Your task to perform on an android device: turn on translation in the chrome app Image 0: 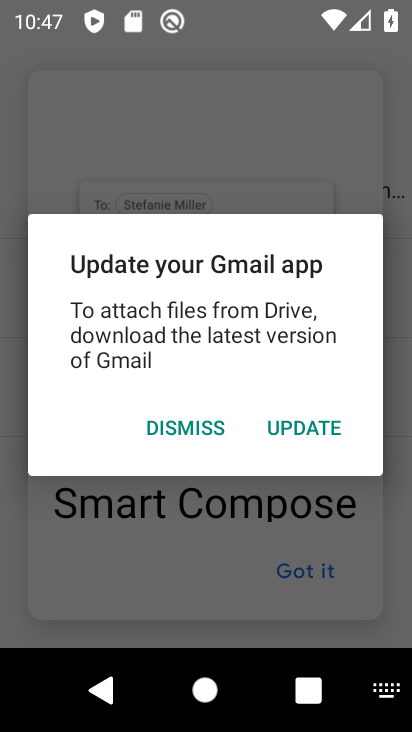
Step 0: press home button
Your task to perform on an android device: turn on translation in the chrome app Image 1: 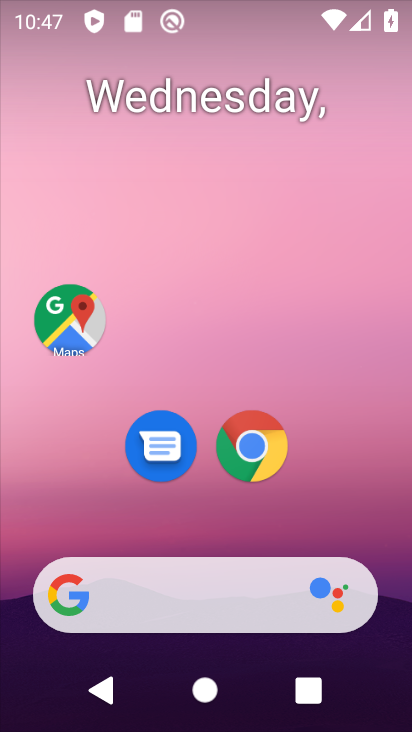
Step 1: drag from (343, 512) to (368, 96)
Your task to perform on an android device: turn on translation in the chrome app Image 2: 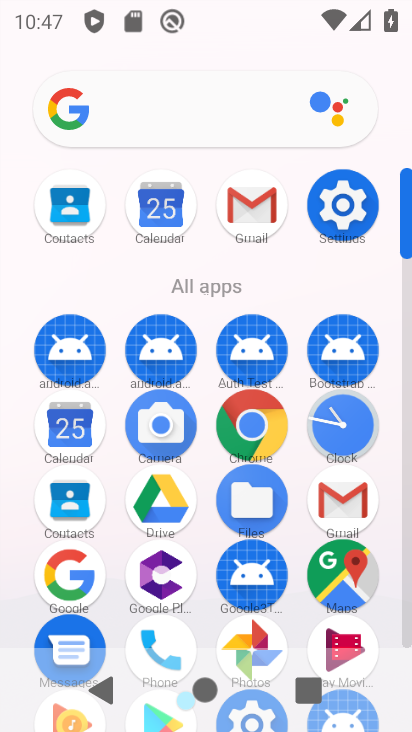
Step 2: click (260, 439)
Your task to perform on an android device: turn on translation in the chrome app Image 3: 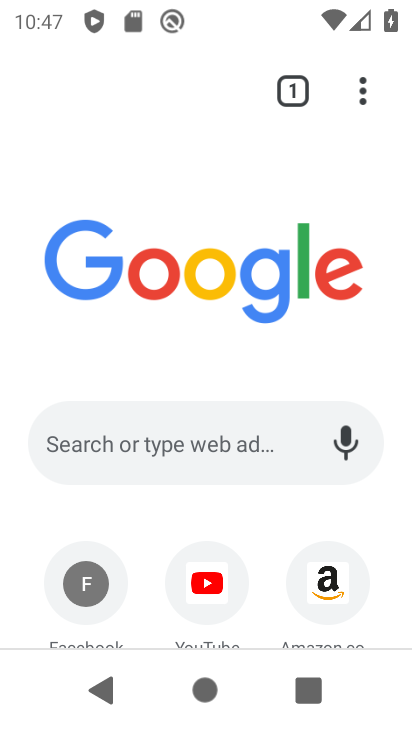
Step 3: click (362, 101)
Your task to perform on an android device: turn on translation in the chrome app Image 4: 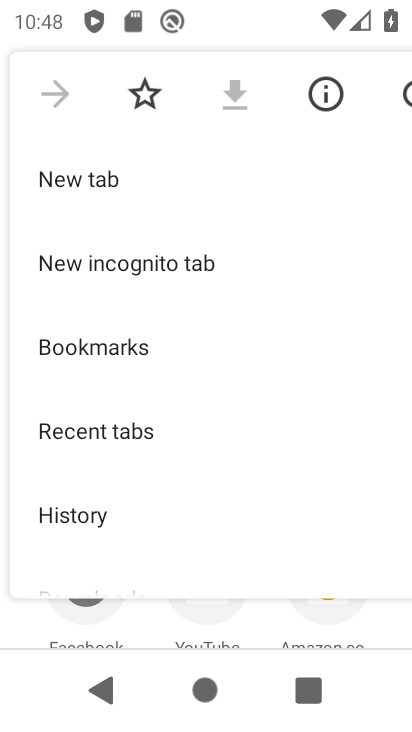
Step 4: drag from (286, 501) to (286, 334)
Your task to perform on an android device: turn on translation in the chrome app Image 5: 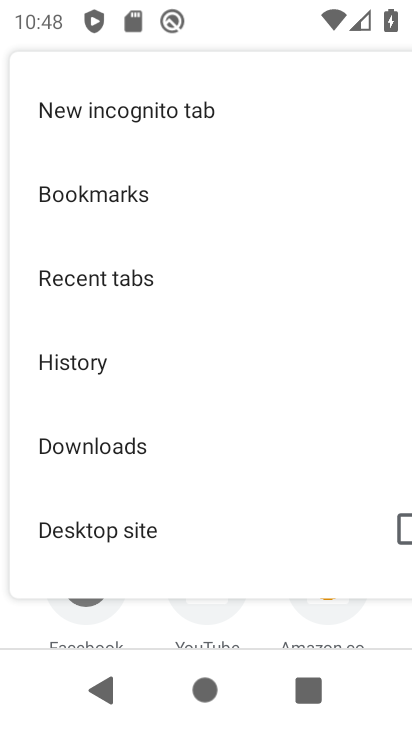
Step 5: drag from (249, 468) to (269, 335)
Your task to perform on an android device: turn on translation in the chrome app Image 6: 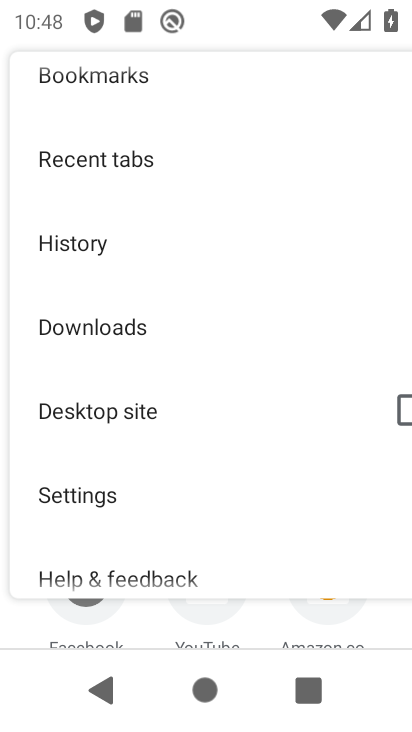
Step 6: drag from (276, 472) to (298, 295)
Your task to perform on an android device: turn on translation in the chrome app Image 7: 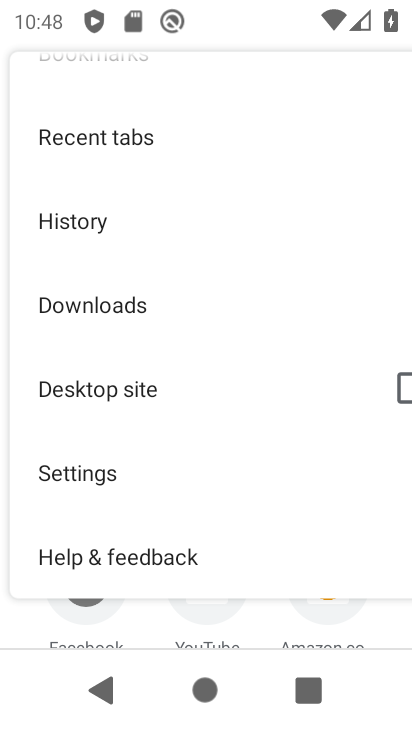
Step 7: click (105, 474)
Your task to perform on an android device: turn on translation in the chrome app Image 8: 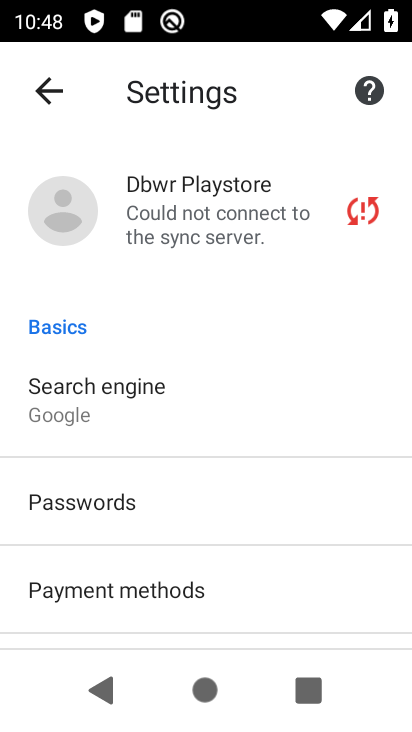
Step 8: drag from (304, 544) to (307, 427)
Your task to perform on an android device: turn on translation in the chrome app Image 9: 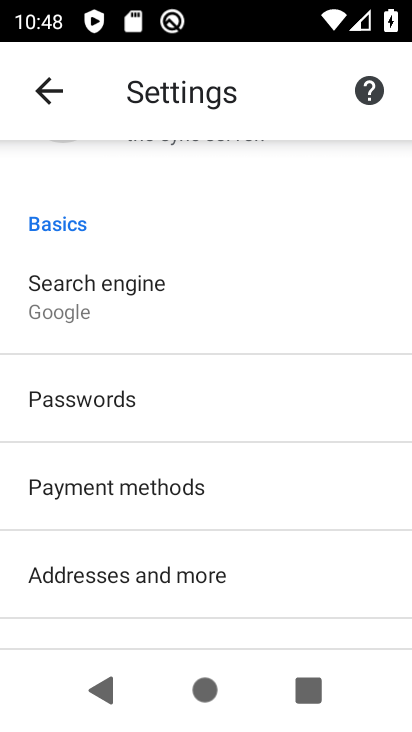
Step 9: drag from (360, 540) to (340, 410)
Your task to perform on an android device: turn on translation in the chrome app Image 10: 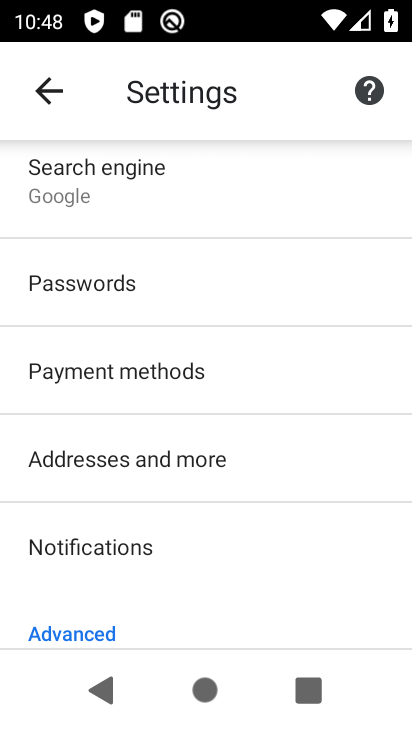
Step 10: drag from (346, 572) to (339, 454)
Your task to perform on an android device: turn on translation in the chrome app Image 11: 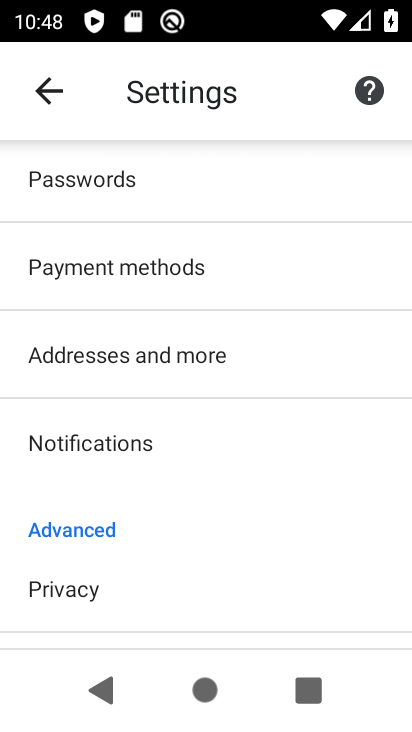
Step 11: drag from (307, 521) to (299, 373)
Your task to perform on an android device: turn on translation in the chrome app Image 12: 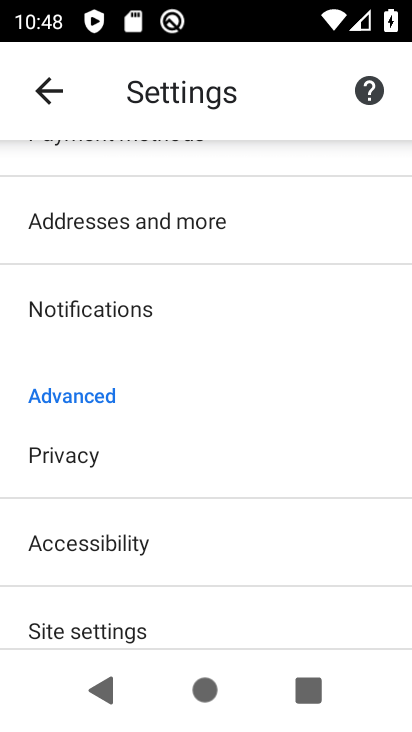
Step 12: drag from (338, 557) to (333, 432)
Your task to perform on an android device: turn on translation in the chrome app Image 13: 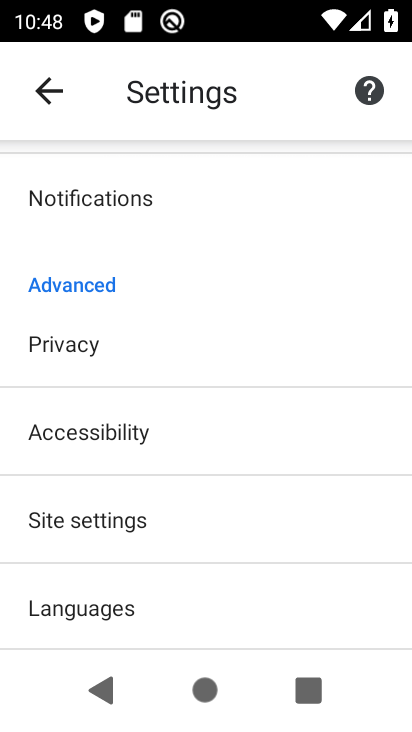
Step 13: drag from (342, 501) to (361, 404)
Your task to perform on an android device: turn on translation in the chrome app Image 14: 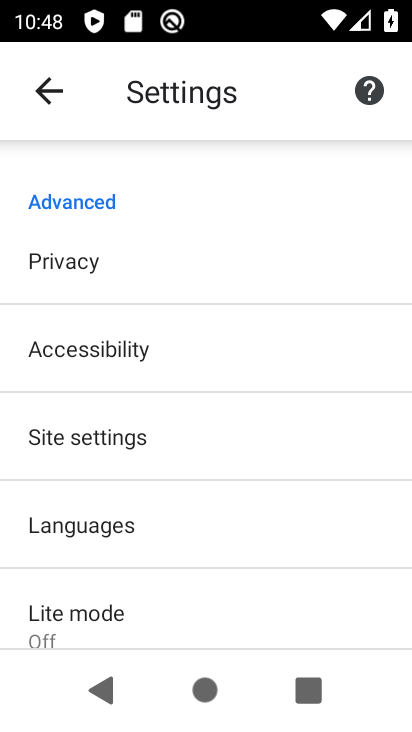
Step 14: drag from (324, 518) to (319, 432)
Your task to perform on an android device: turn on translation in the chrome app Image 15: 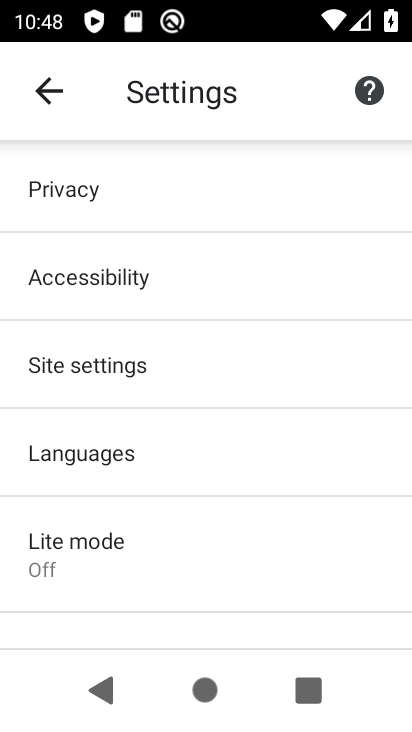
Step 15: drag from (306, 555) to (330, 344)
Your task to perform on an android device: turn on translation in the chrome app Image 16: 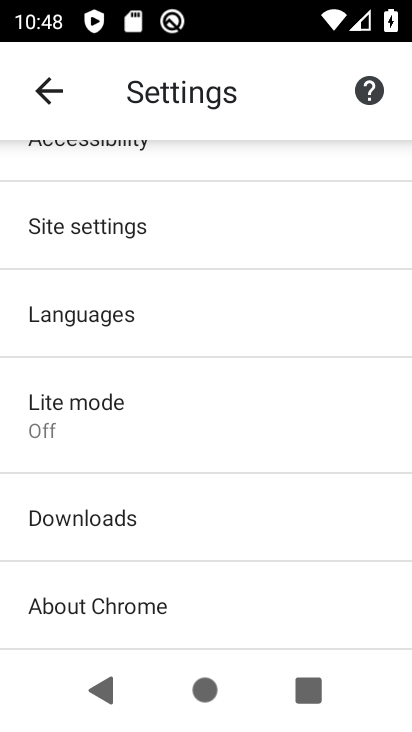
Step 16: drag from (339, 465) to (357, 326)
Your task to perform on an android device: turn on translation in the chrome app Image 17: 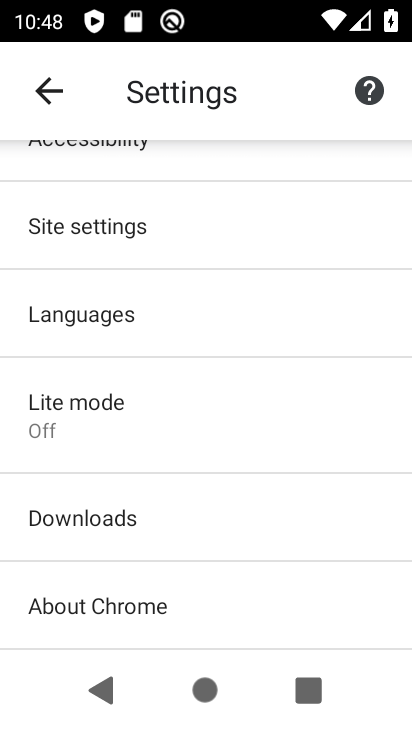
Step 17: drag from (300, 259) to (295, 379)
Your task to perform on an android device: turn on translation in the chrome app Image 18: 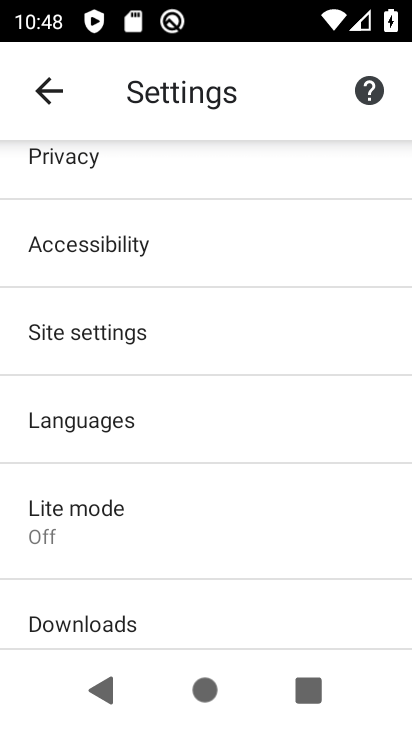
Step 18: click (221, 428)
Your task to perform on an android device: turn on translation in the chrome app Image 19: 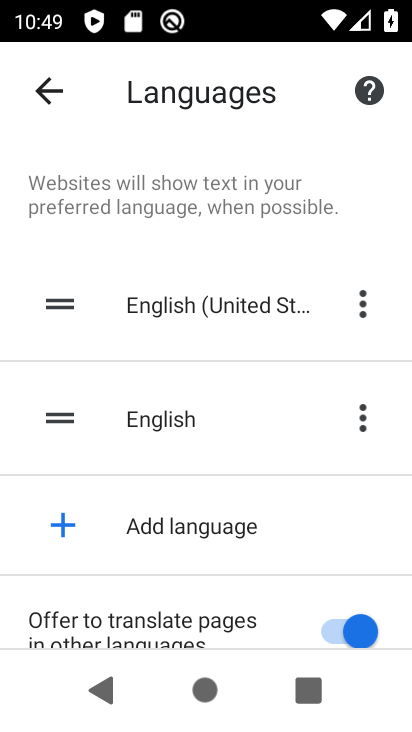
Step 19: task complete